Your task to perform on an android device: toggle translation in the chrome app Image 0: 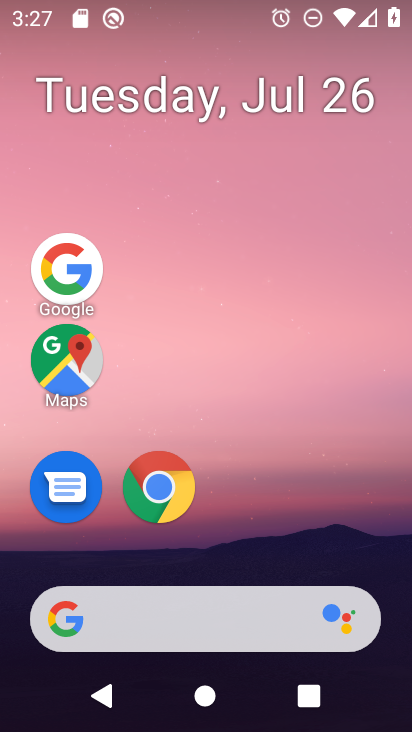
Step 0: drag from (189, 581) to (195, 75)
Your task to perform on an android device: toggle translation in the chrome app Image 1: 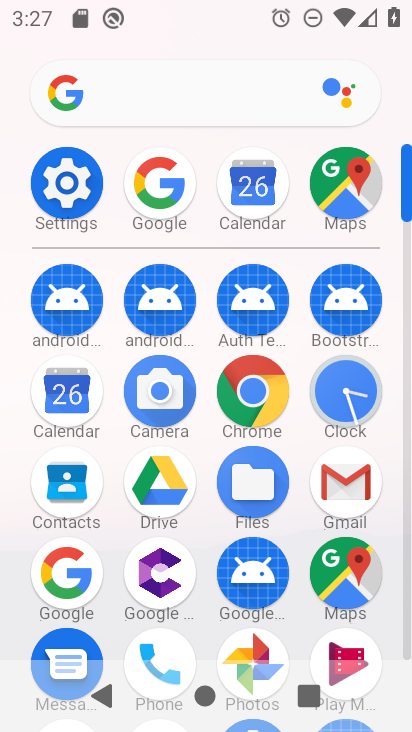
Step 1: click (263, 423)
Your task to perform on an android device: toggle translation in the chrome app Image 2: 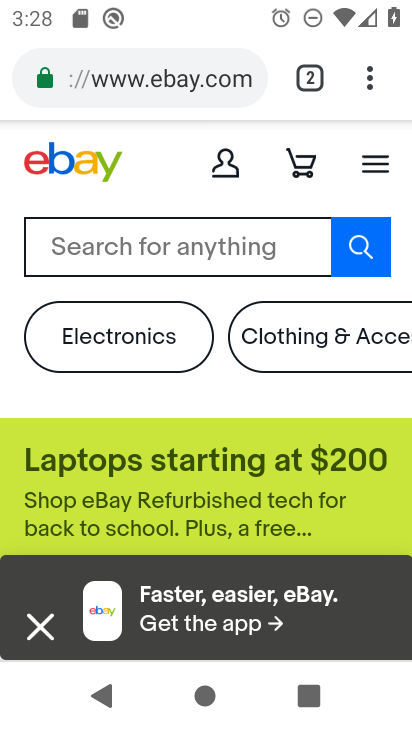
Step 2: click (370, 77)
Your task to perform on an android device: toggle translation in the chrome app Image 3: 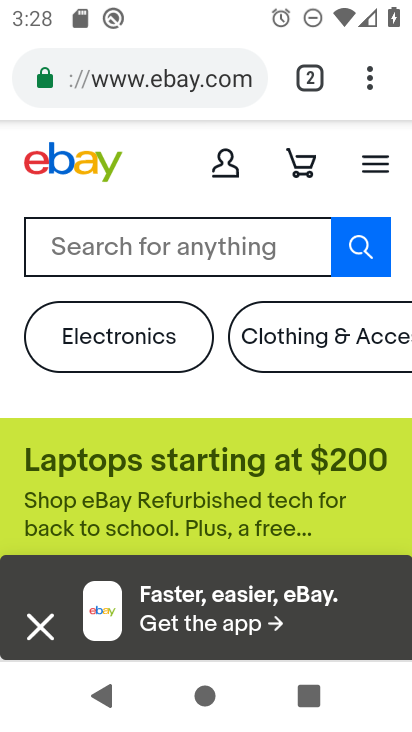
Step 3: click (368, 84)
Your task to perform on an android device: toggle translation in the chrome app Image 4: 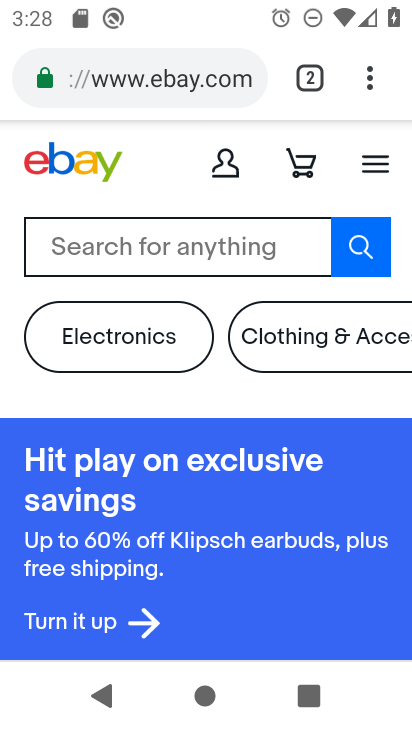
Step 4: click (380, 88)
Your task to perform on an android device: toggle translation in the chrome app Image 5: 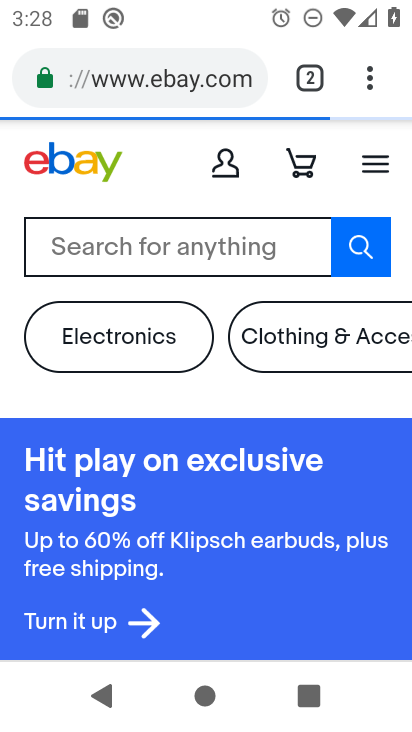
Step 5: click (377, 85)
Your task to perform on an android device: toggle translation in the chrome app Image 6: 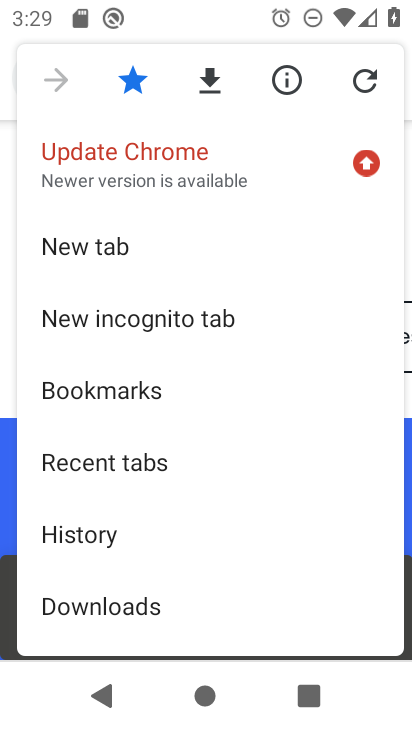
Step 6: task complete